Your task to perform on an android device: Search for pizza restaurants on Maps Image 0: 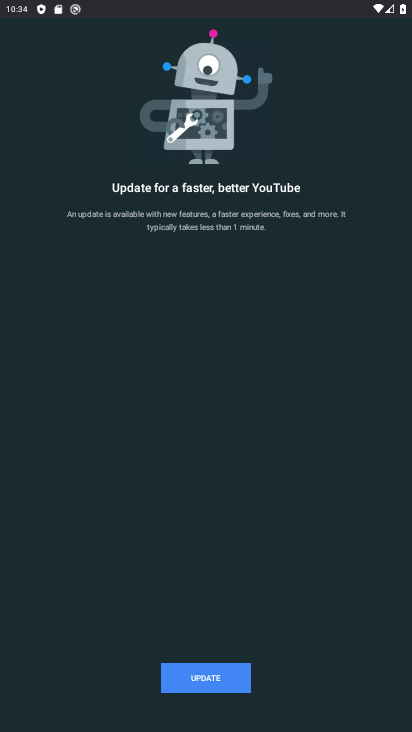
Step 0: press home button
Your task to perform on an android device: Search for pizza restaurants on Maps Image 1: 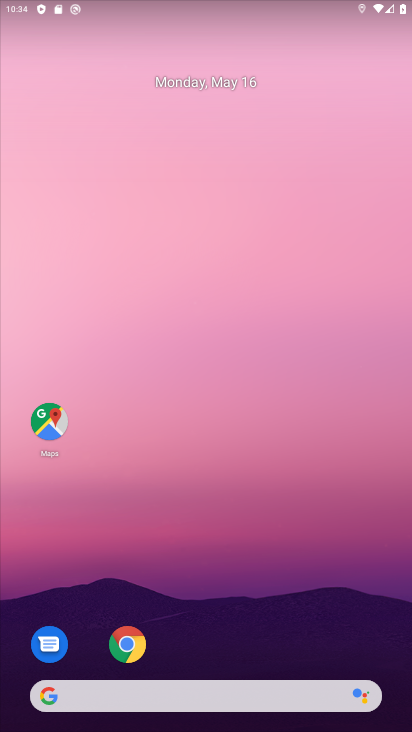
Step 1: drag from (206, 725) to (202, 259)
Your task to perform on an android device: Search for pizza restaurants on Maps Image 2: 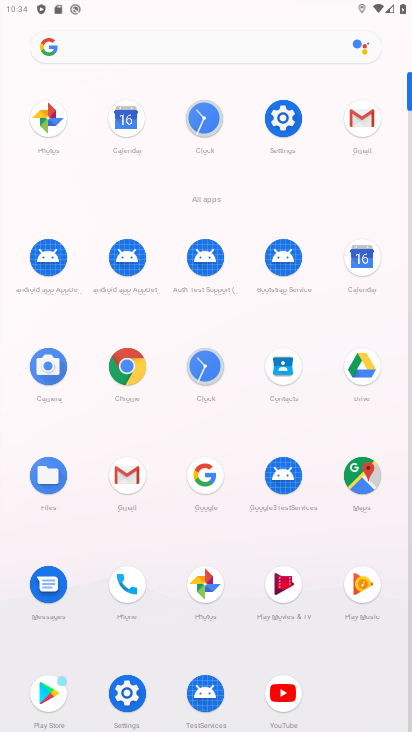
Step 2: click (362, 484)
Your task to perform on an android device: Search for pizza restaurants on Maps Image 3: 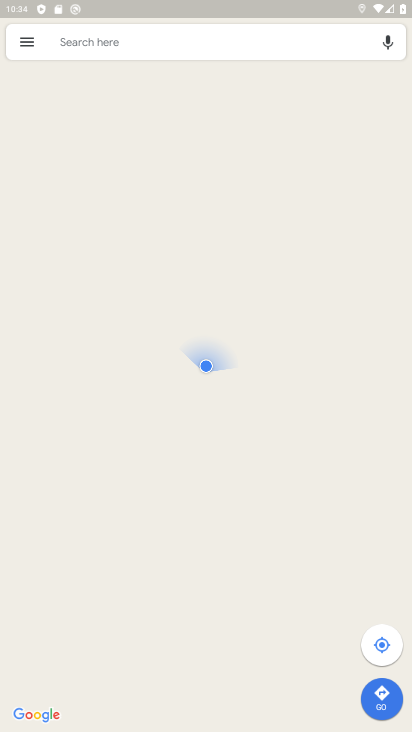
Step 3: click (151, 38)
Your task to perform on an android device: Search for pizza restaurants on Maps Image 4: 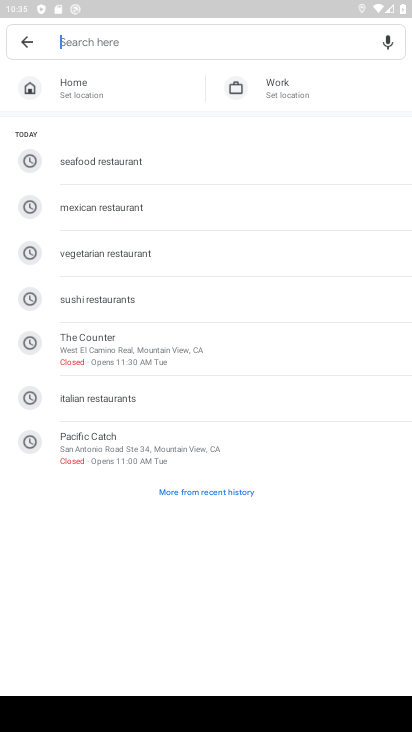
Step 4: type "Pizza restaurants"
Your task to perform on an android device: Search for pizza restaurants on Maps Image 5: 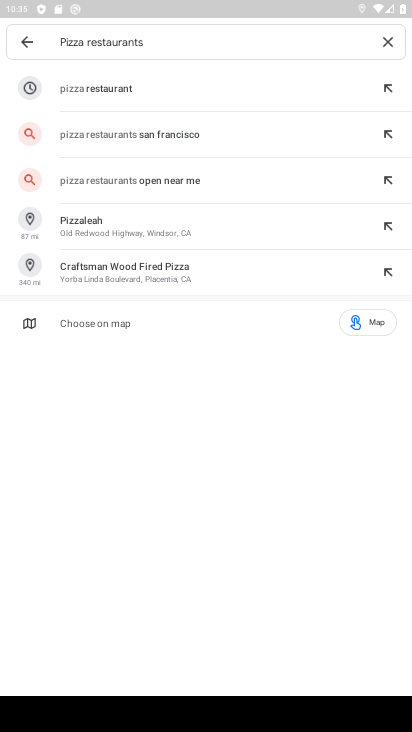
Step 5: click (112, 88)
Your task to perform on an android device: Search for pizza restaurants on Maps Image 6: 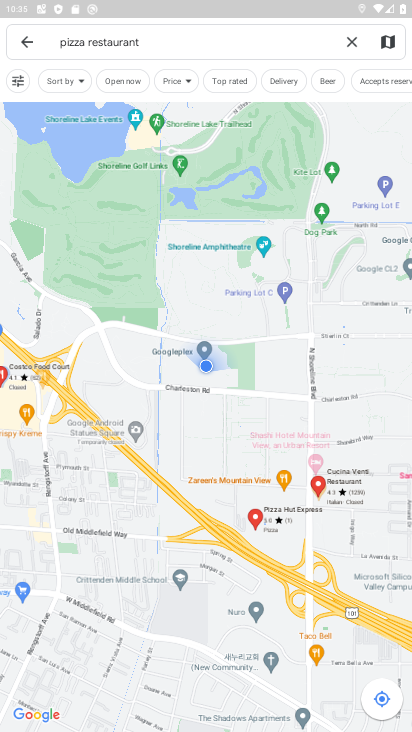
Step 6: task complete